Your task to perform on an android device: open the mobile data screen to see how much data has been used Image 0: 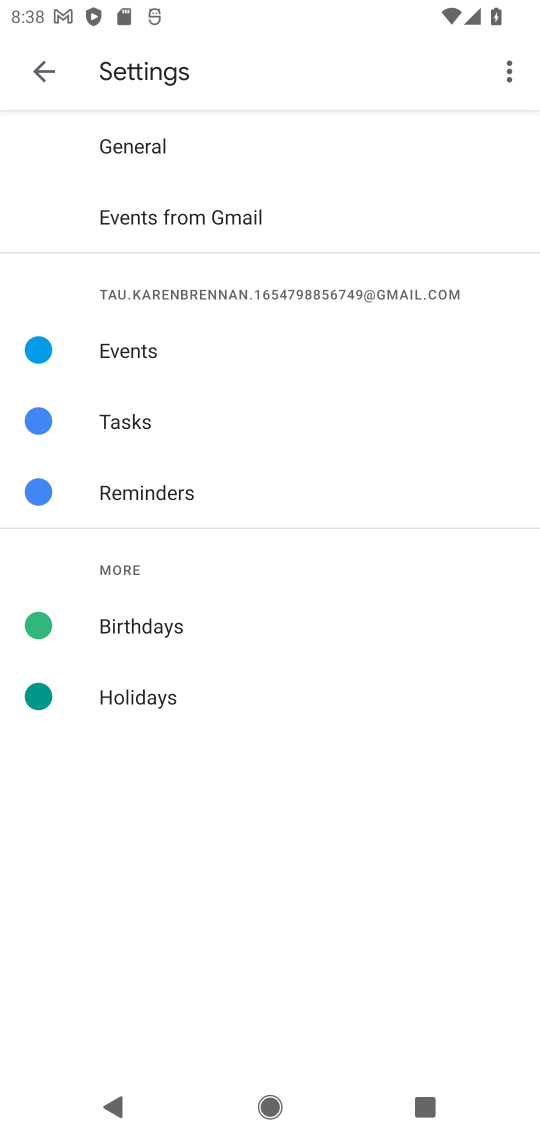
Step 0: press home button
Your task to perform on an android device: open the mobile data screen to see how much data has been used Image 1: 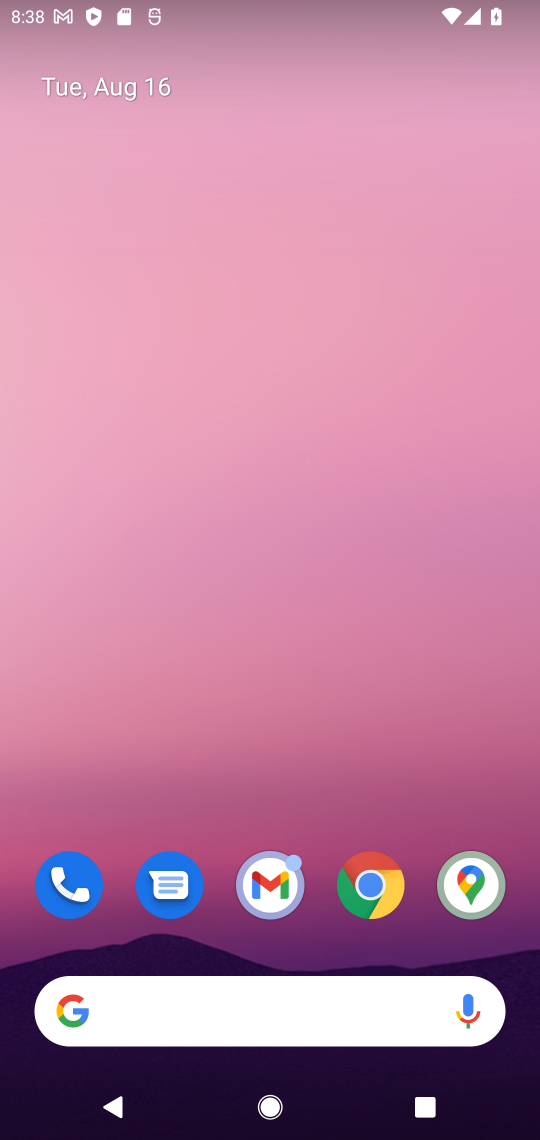
Step 1: drag from (238, 946) to (354, 174)
Your task to perform on an android device: open the mobile data screen to see how much data has been used Image 2: 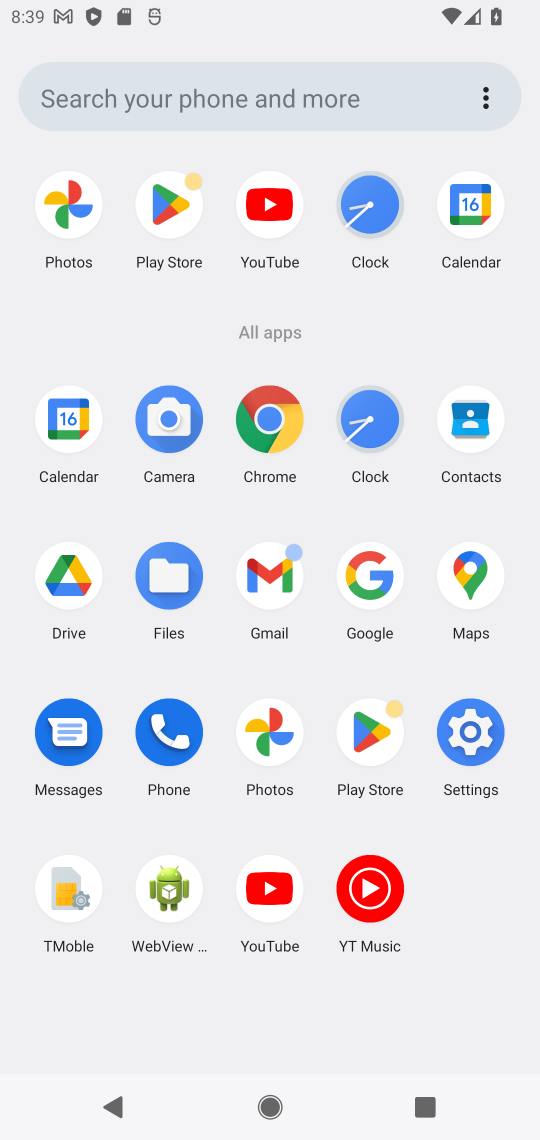
Step 2: click (469, 731)
Your task to perform on an android device: open the mobile data screen to see how much data has been used Image 3: 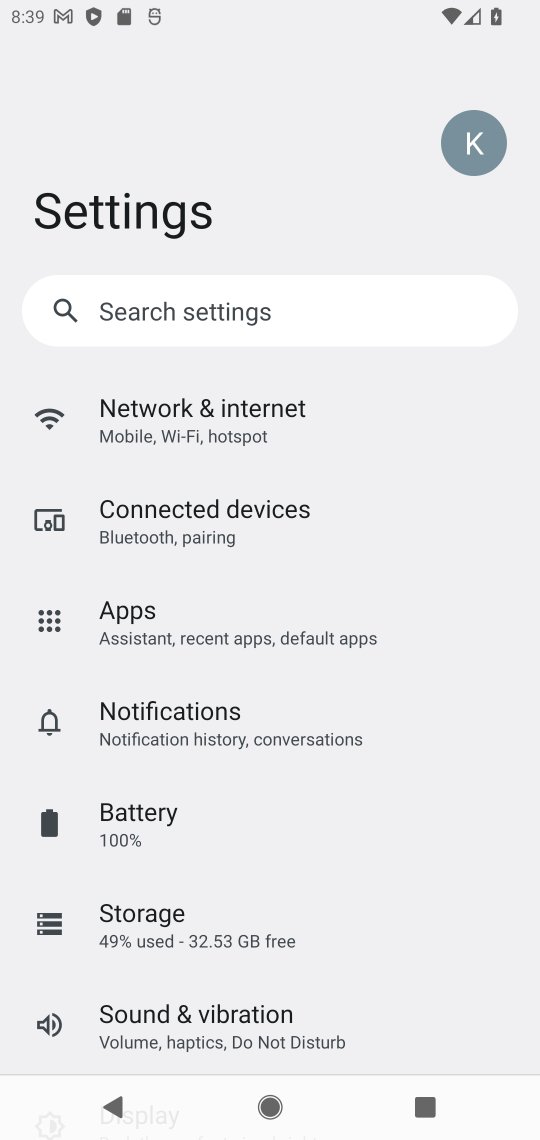
Step 3: click (188, 419)
Your task to perform on an android device: open the mobile data screen to see how much data has been used Image 4: 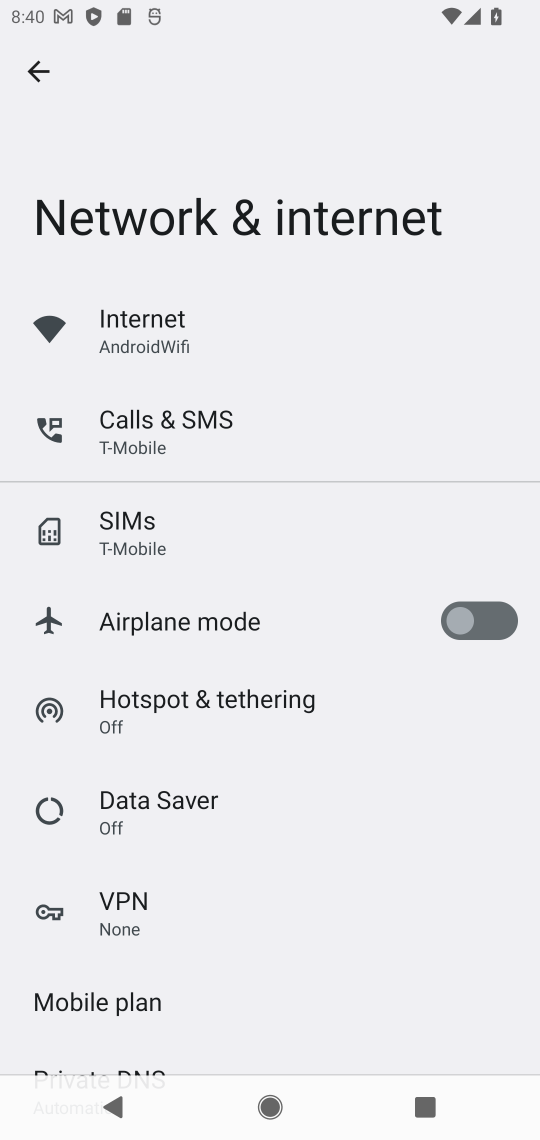
Step 4: click (150, 331)
Your task to perform on an android device: open the mobile data screen to see how much data has been used Image 5: 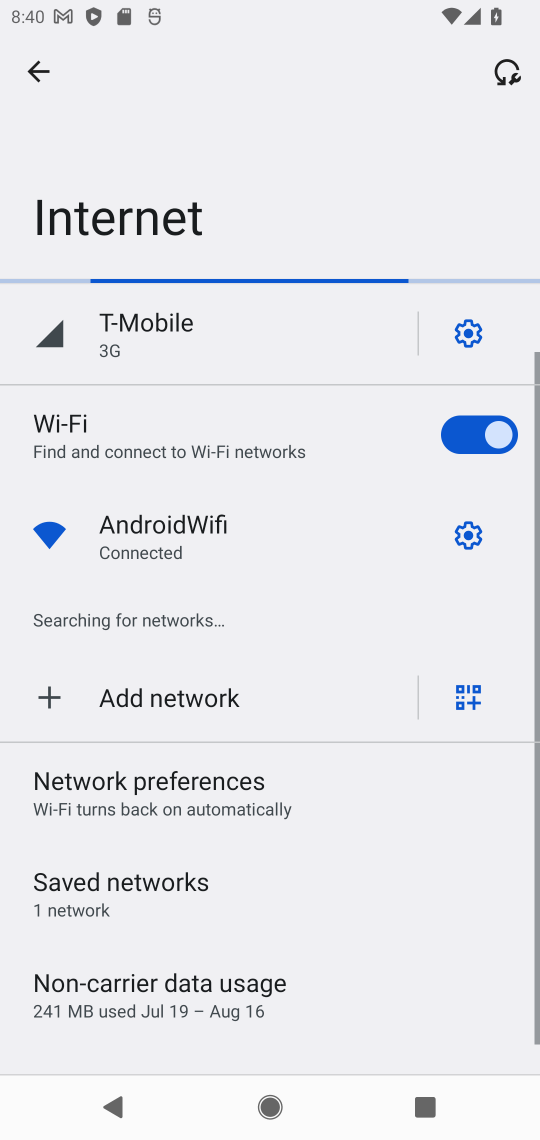
Step 5: click (206, 341)
Your task to perform on an android device: open the mobile data screen to see how much data has been used Image 6: 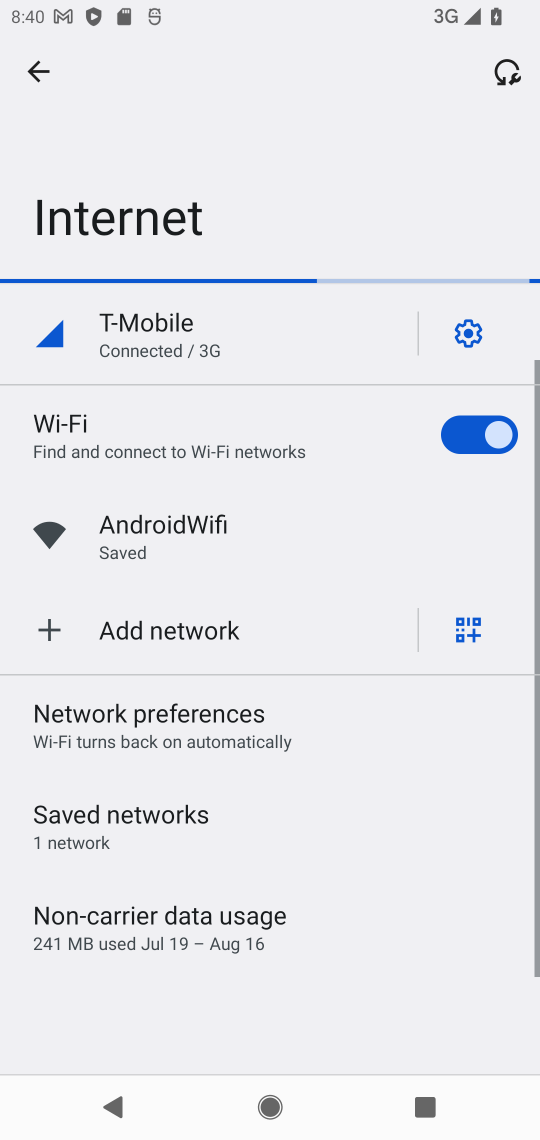
Step 6: task complete